Your task to perform on an android device: Clear the shopping cart on bestbuy. Search for "dell alienware" on bestbuy, select the first entry, and add it to the cart. Image 0: 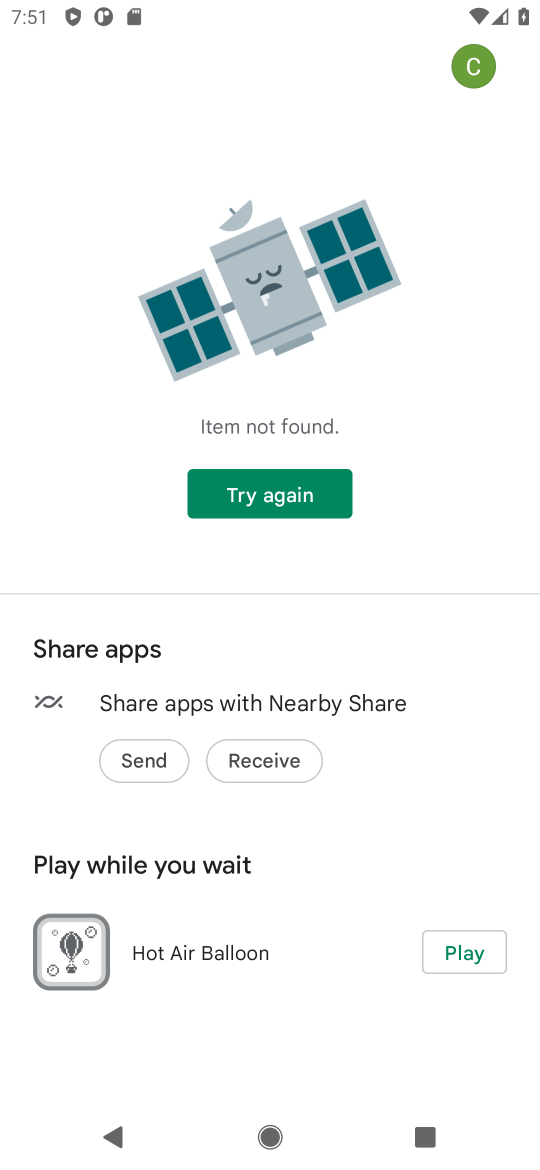
Step 0: press home button
Your task to perform on an android device: Clear the shopping cart on bestbuy. Search for "dell alienware" on bestbuy, select the first entry, and add it to the cart. Image 1: 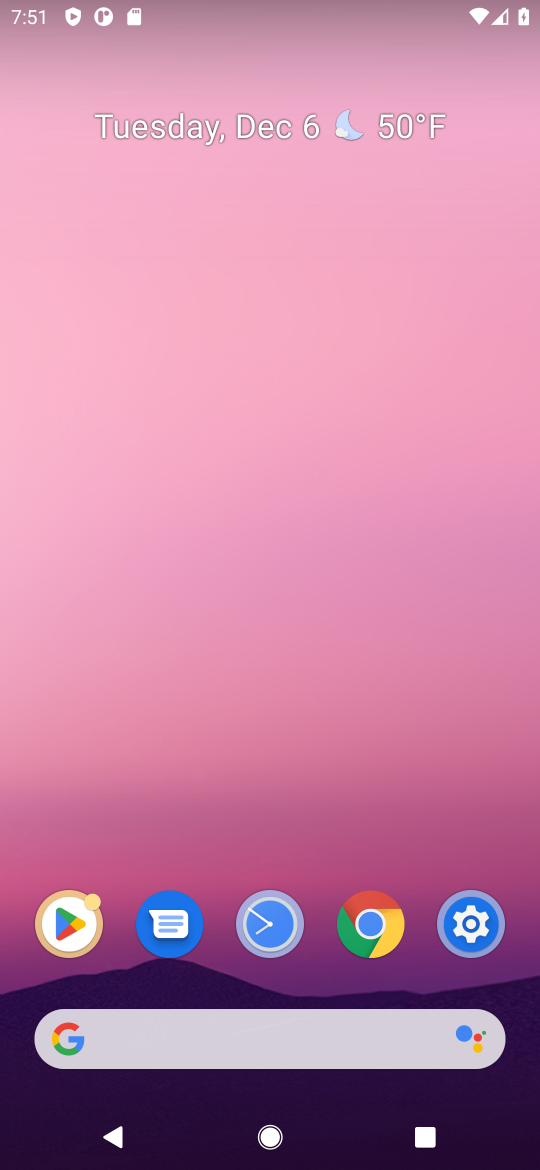
Step 1: click (249, 1044)
Your task to perform on an android device: Clear the shopping cart on bestbuy. Search for "dell alienware" on bestbuy, select the first entry, and add it to the cart. Image 2: 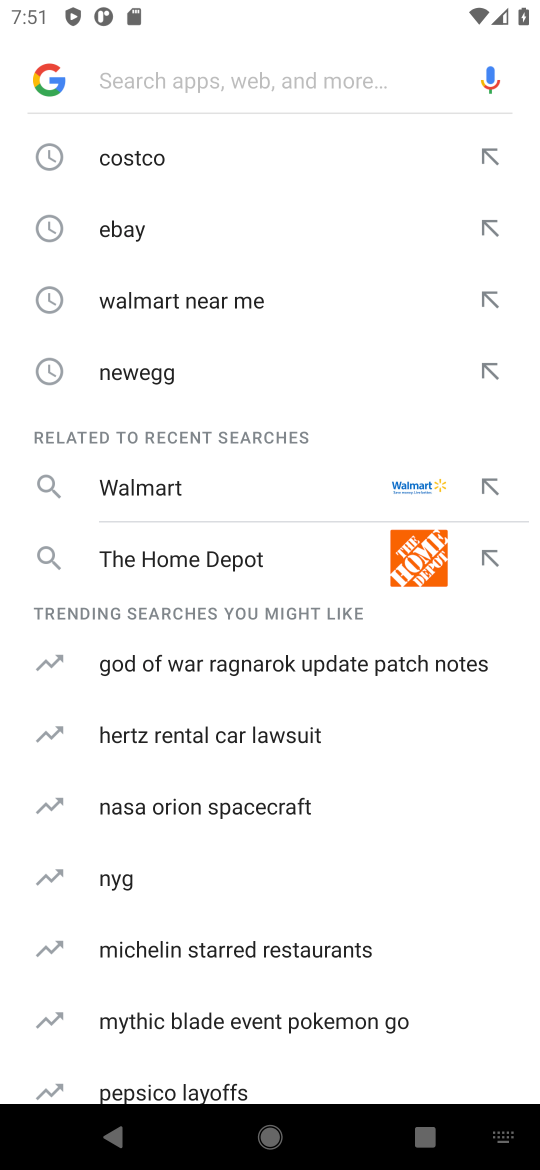
Step 2: type "bestbuy"
Your task to perform on an android device: Clear the shopping cart on bestbuy. Search for "dell alienware" on bestbuy, select the first entry, and add it to the cart. Image 3: 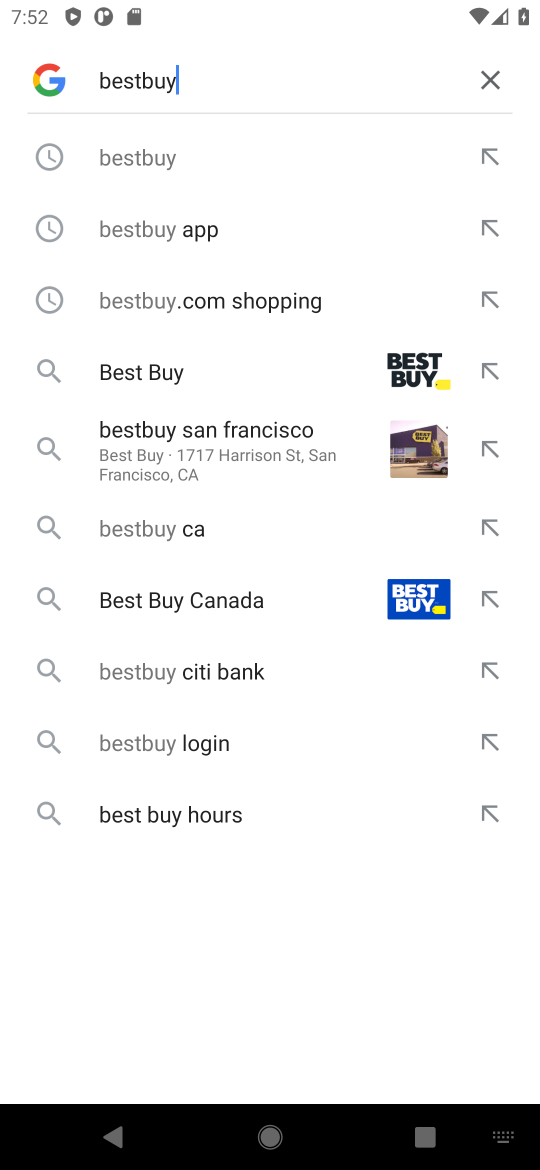
Step 3: type "'"
Your task to perform on an android device: Clear the shopping cart on bestbuy. Search for "dell alienware" on bestbuy, select the first entry, and add it to the cart. Image 4: 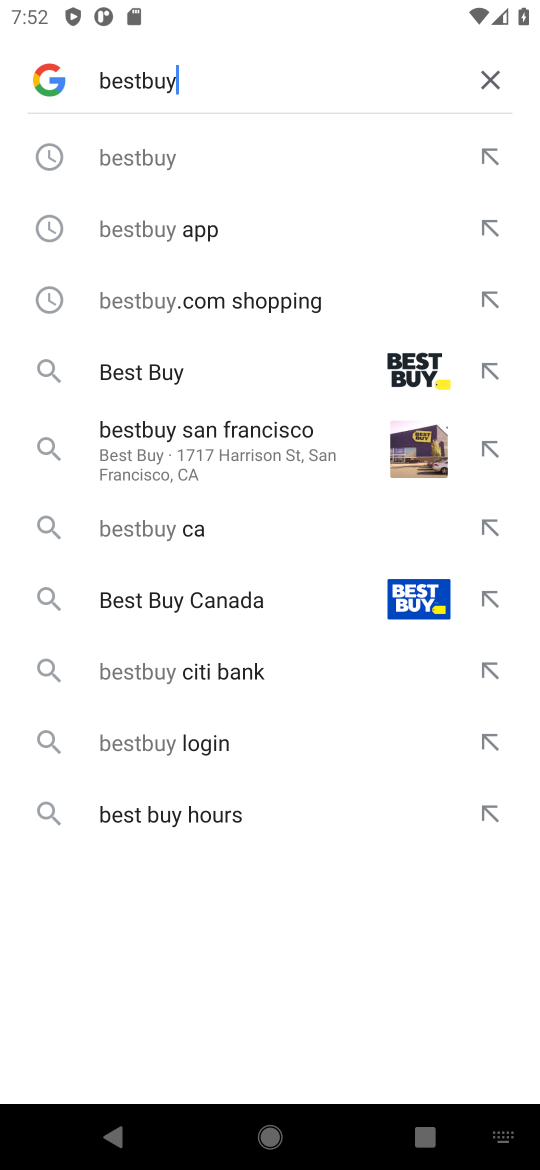
Step 4: click (186, 159)
Your task to perform on an android device: Clear the shopping cart on bestbuy. Search for "dell alienware" on bestbuy, select the first entry, and add it to the cart. Image 5: 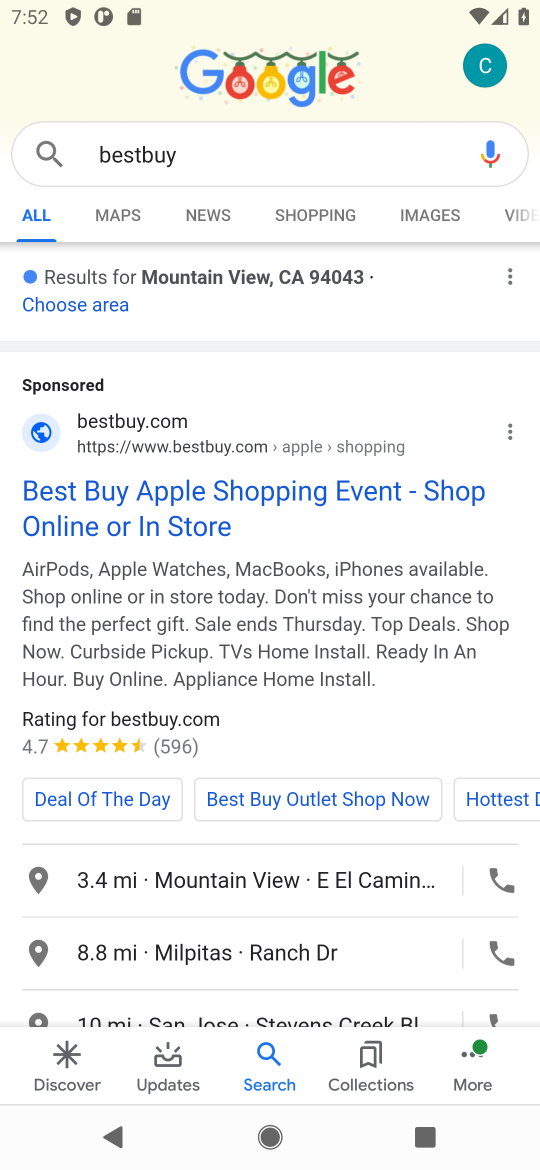
Step 5: click (158, 534)
Your task to perform on an android device: Clear the shopping cart on bestbuy. Search for "dell alienware" on bestbuy, select the first entry, and add it to the cart. Image 6: 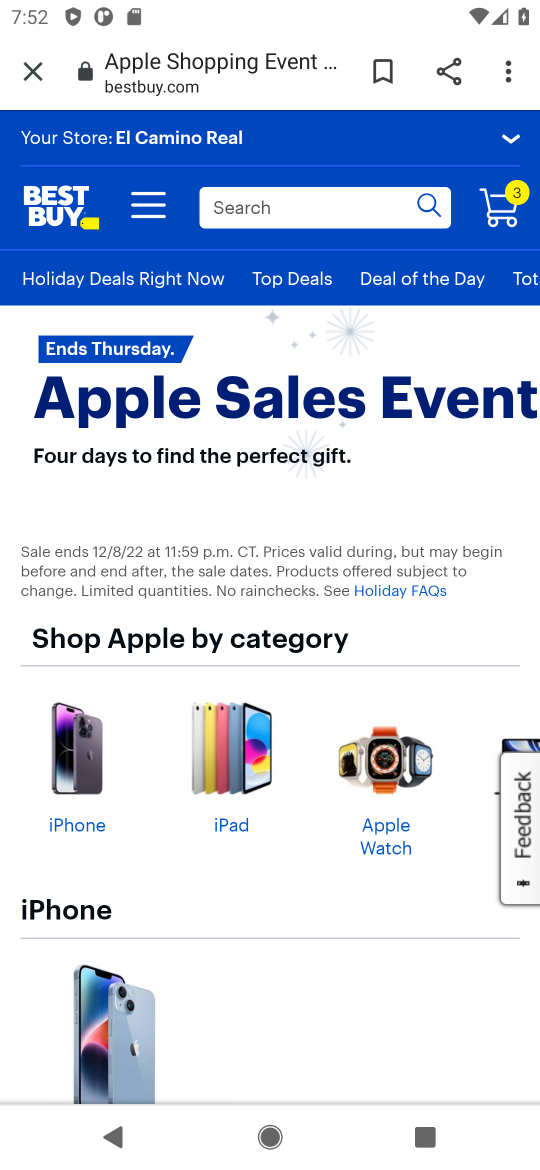
Step 6: click (279, 203)
Your task to perform on an android device: Clear the shopping cart on bestbuy. Search for "dell alienware" on bestbuy, select the first entry, and add it to the cart. Image 7: 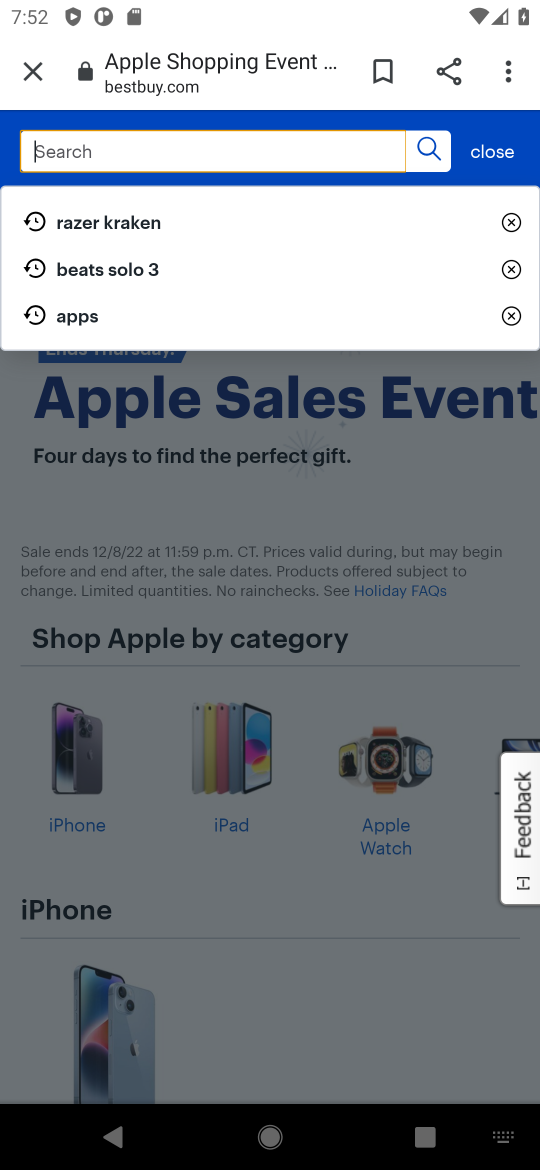
Step 7: type "dell alienware"
Your task to perform on an android device: Clear the shopping cart on bestbuy. Search for "dell alienware" on bestbuy, select the first entry, and add it to the cart. Image 8: 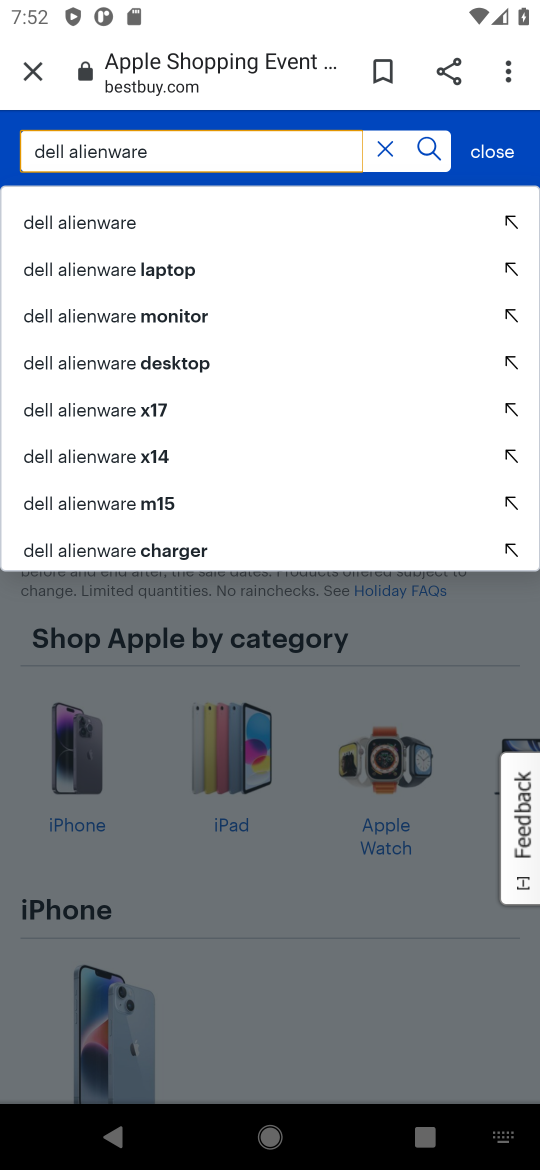
Step 8: click (27, 219)
Your task to perform on an android device: Clear the shopping cart on bestbuy. Search for "dell alienware" on bestbuy, select the first entry, and add it to the cart. Image 9: 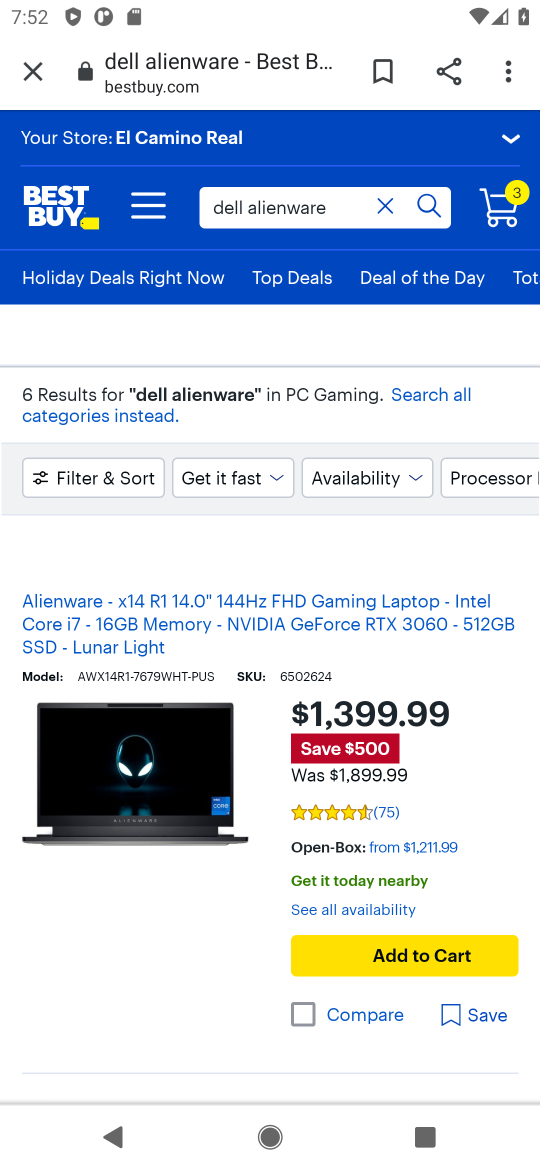
Step 9: click (166, 743)
Your task to perform on an android device: Clear the shopping cart on bestbuy. Search for "dell alienware" on bestbuy, select the first entry, and add it to the cart. Image 10: 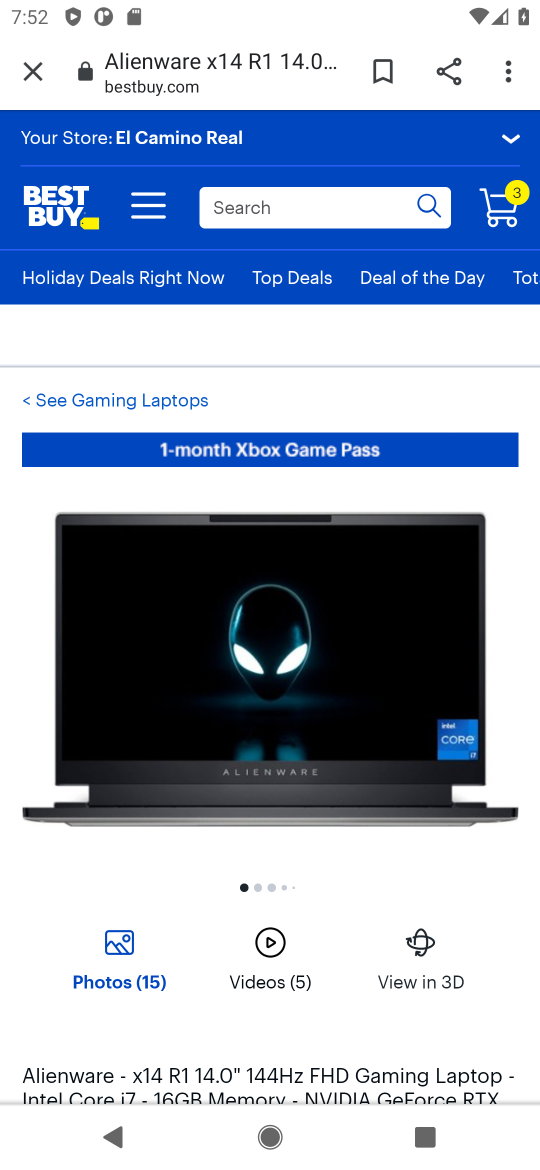
Step 10: task complete